Your task to perform on an android device: Find coffee shops on Maps Image 0: 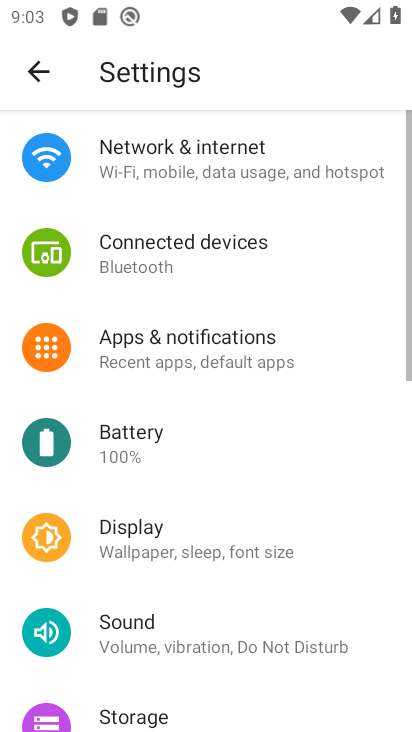
Step 0: press home button
Your task to perform on an android device: Find coffee shops on Maps Image 1: 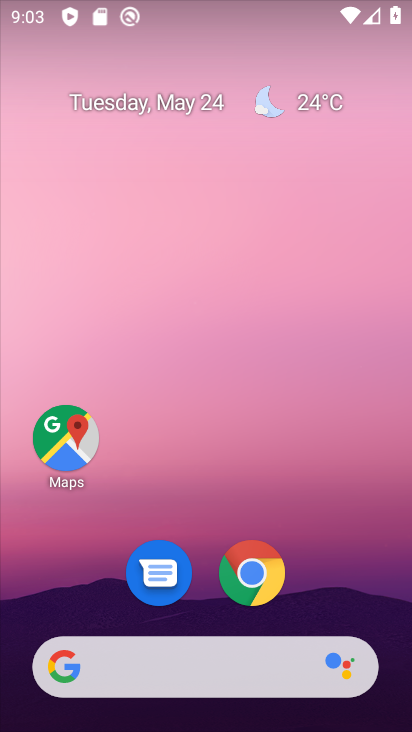
Step 1: click (78, 438)
Your task to perform on an android device: Find coffee shops on Maps Image 2: 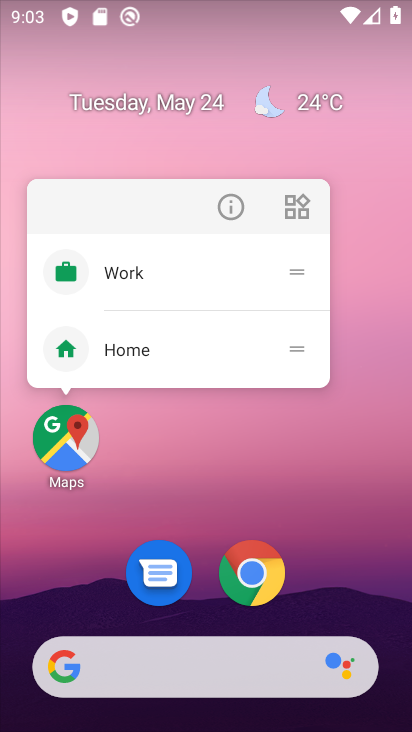
Step 2: click (56, 433)
Your task to perform on an android device: Find coffee shops on Maps Image 3: 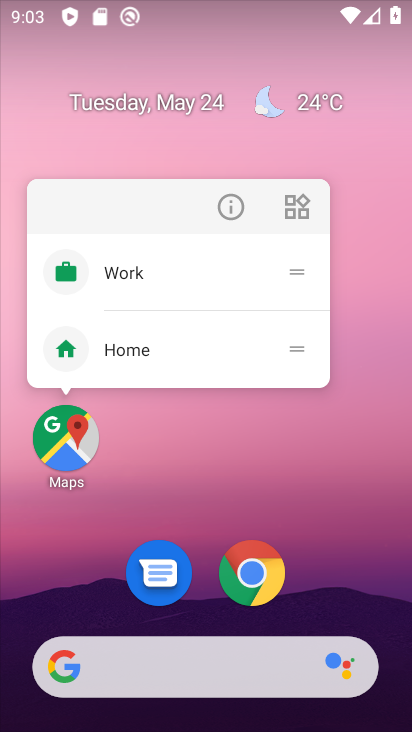
Step 3: click (69, 468)
Your task to perform on an android device: Find coffee shops on Maps Image 4: 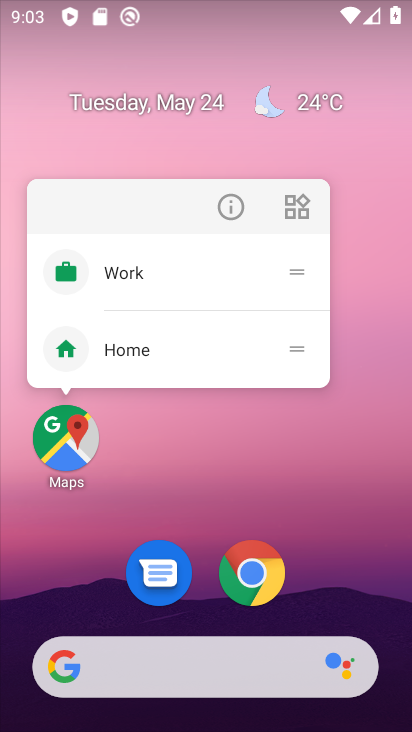
Step 4: click (68, 462)
Your task to perform on an android device: Find coffee shops on Maps Image 5: 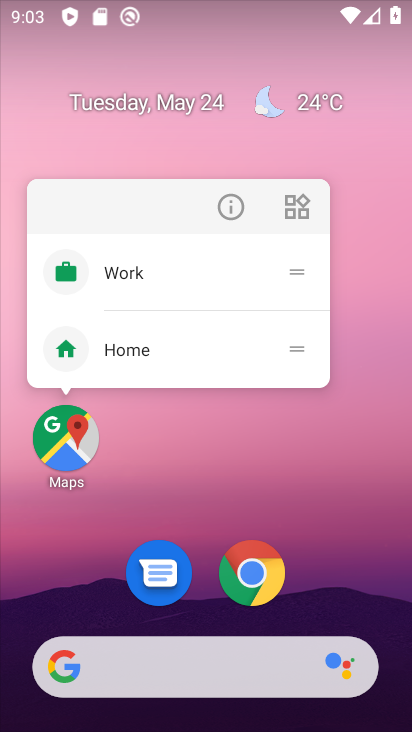
Step 5: click (70, 451)
Your task to perform on an android device: Find coffee shops on Maps Image 6: 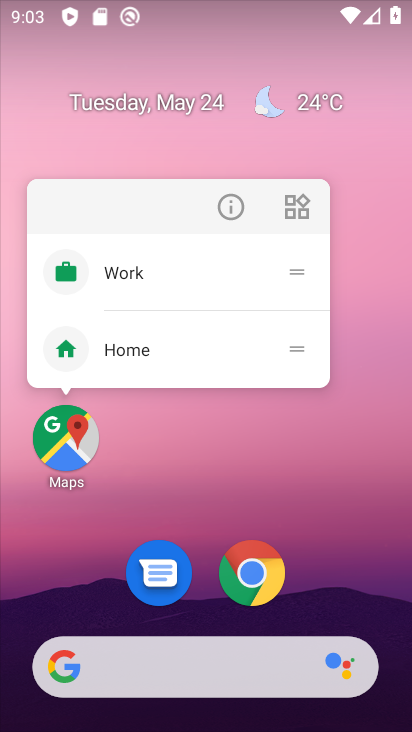
Step 6: click (64, 431)
Your task to perform on an android device: Find coffee shops on Maps Image 7: 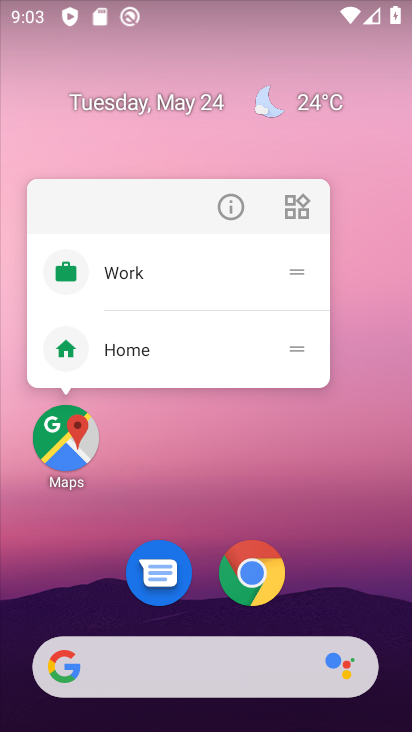
Step 7: click (68, 439)
Your task to perform on an android device: Find coffee shops on Maps Image 8: 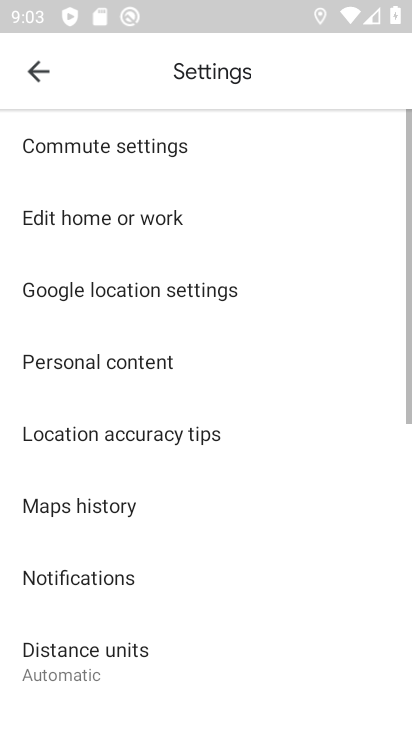
Step 8: press back button
Your task to perform on an android device: Find coffee shops on Maps Image 9: 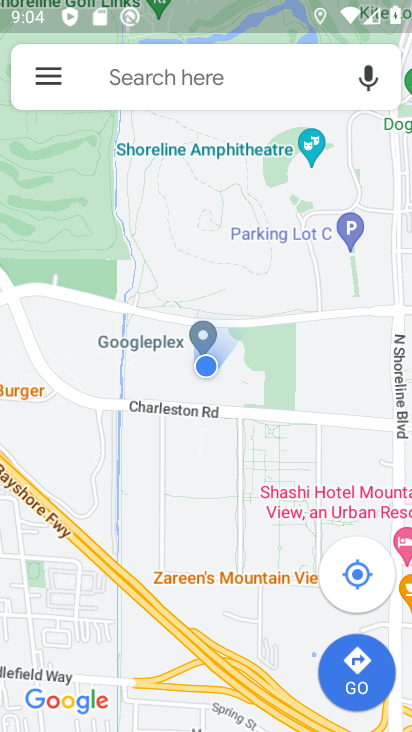
Step 9: click (201, 85)
Your task to perform on an android device: Find coffee shops on Maps Image 10: 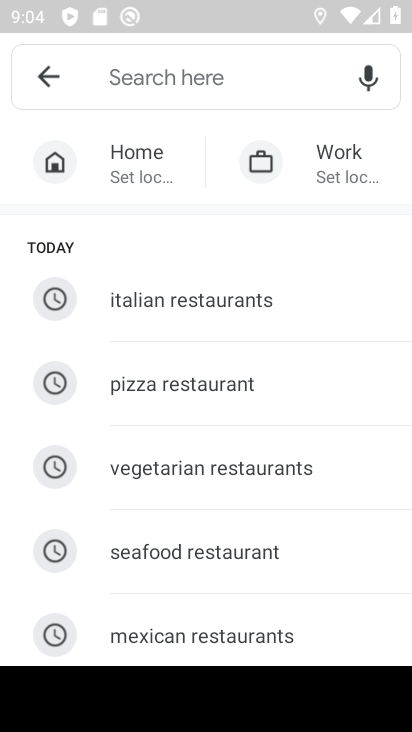
Step 10: type "Coffee shops "
Your task to perform on an android device: Find coffee shops on Maps Image 11: 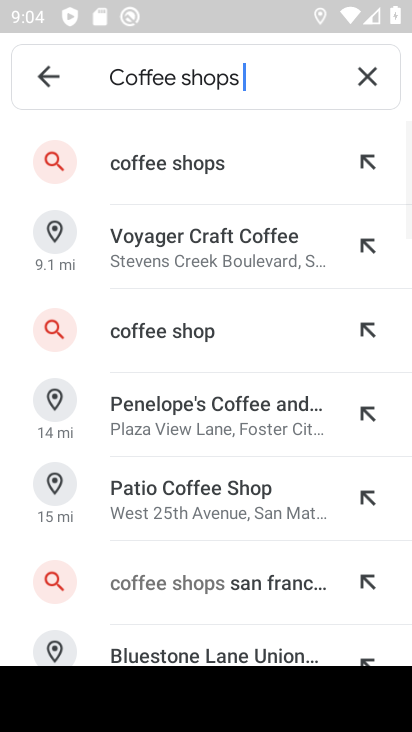
Step 11: click (184, 166)
Your task to perform on an android device: Find coffee shops on Maps Image 12: 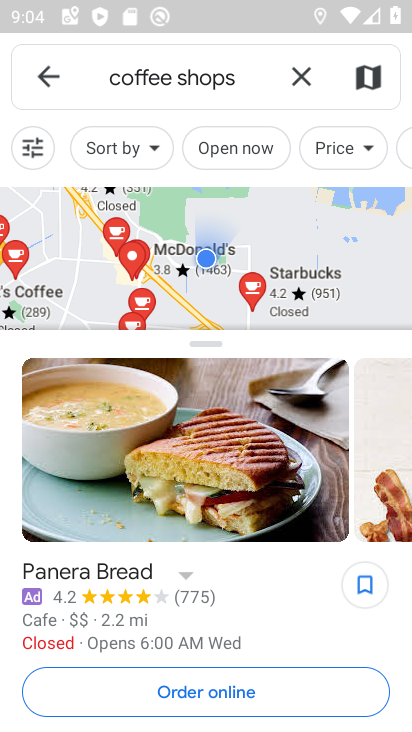
Step 12: task complete